Your task to perform on an android device: Open display settings Image 0: 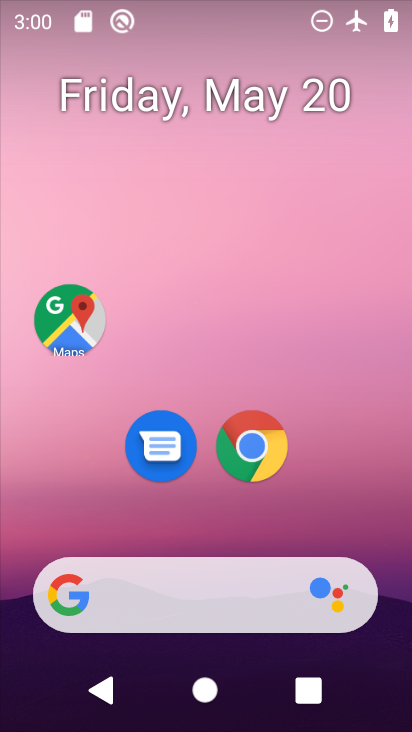
Step 0: drag from (350, 545) to (300, 8)
Your task to perform on an android device: Open display settings Image 1: 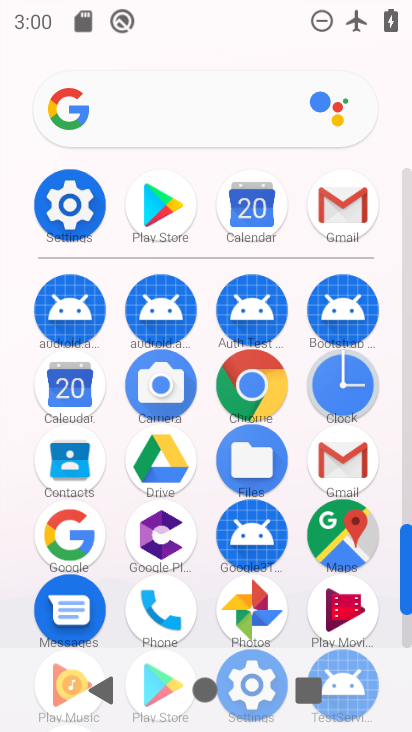
Step 1: click (60, 195)
Your task to perform on an android device: Open display settings Image 2: 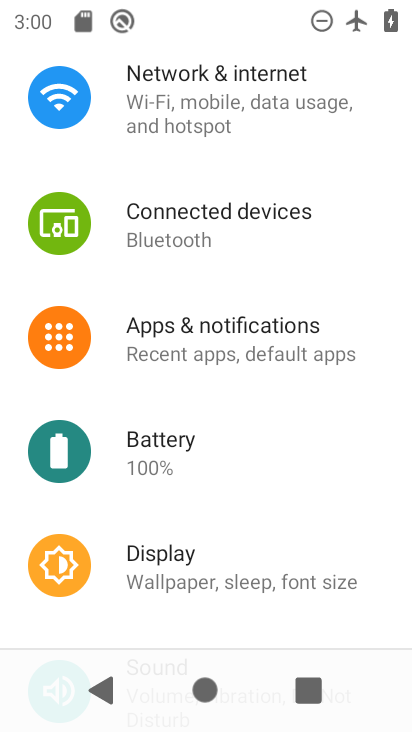
Step 2: click (168, 561)
Your task to perform on an android device: Open display settings Image 3: 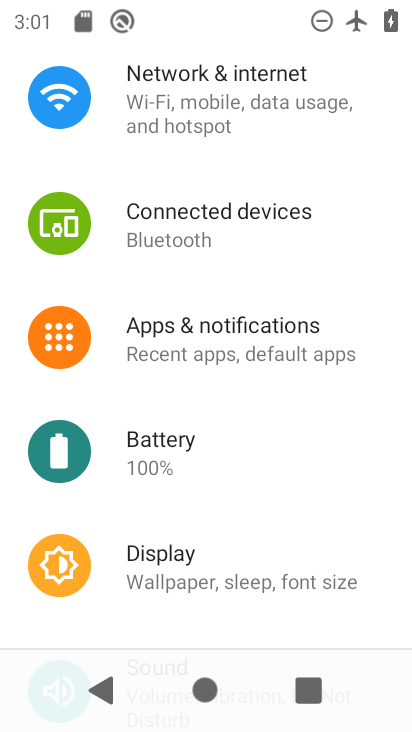
Step 3: click (169, 573)
Your task to perform on an android device: Open display settings Image 4: 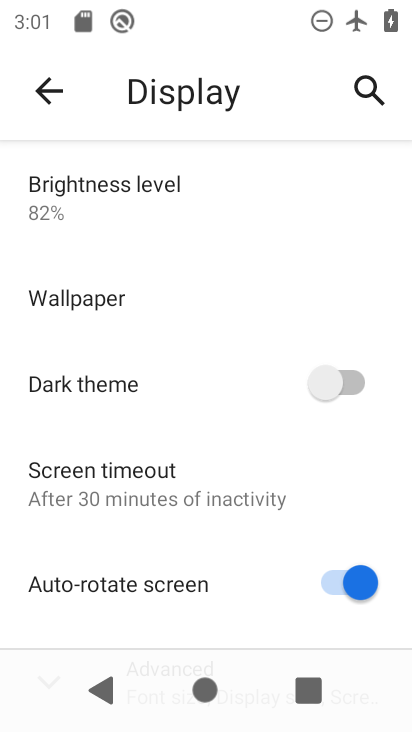
Step 4: task complete